Your task to perform on an android device: turn off location Image 0: 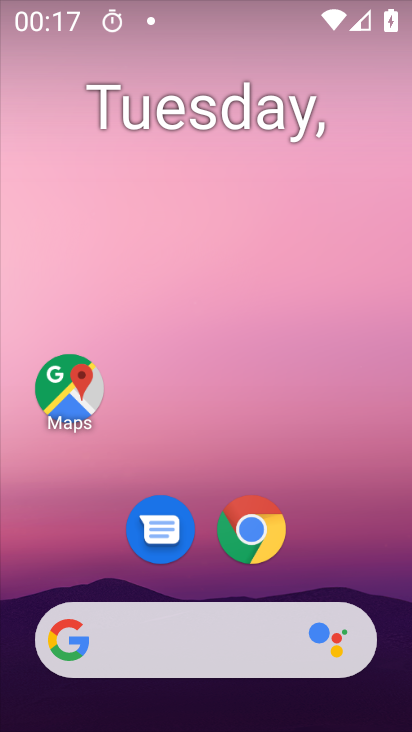
Step 0: drag from (385, 533) to (331, 49)
Your task to perform on an android device: turn off location Image 1: 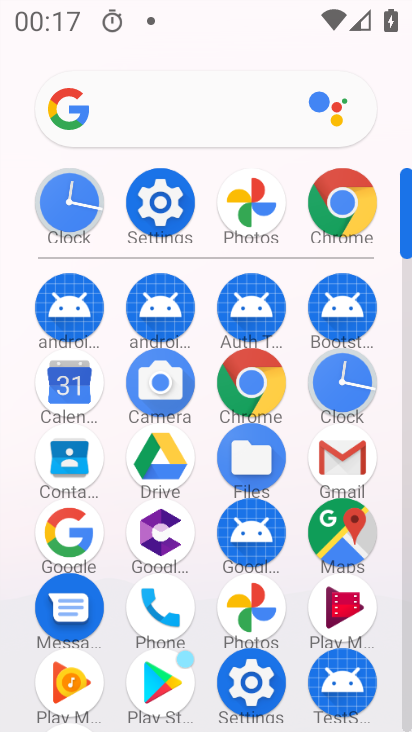
Step 1: click (179, 204)
Your task to perform on an android device: turn off location Image 2: 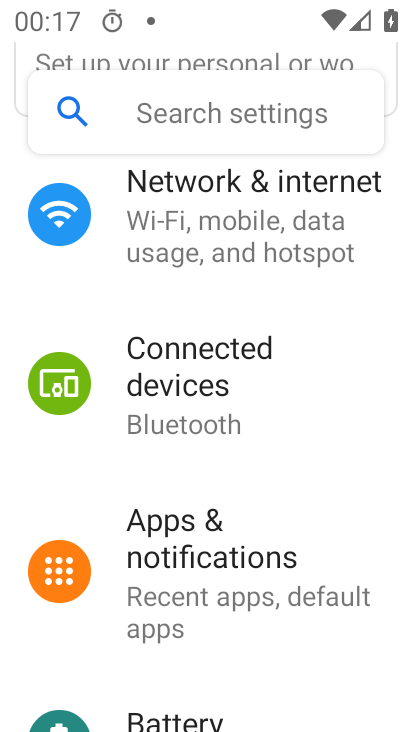
Step 2: drag from (350, 691) to (332, 0)
Your task to perform on an android device: turn off location Image 3: 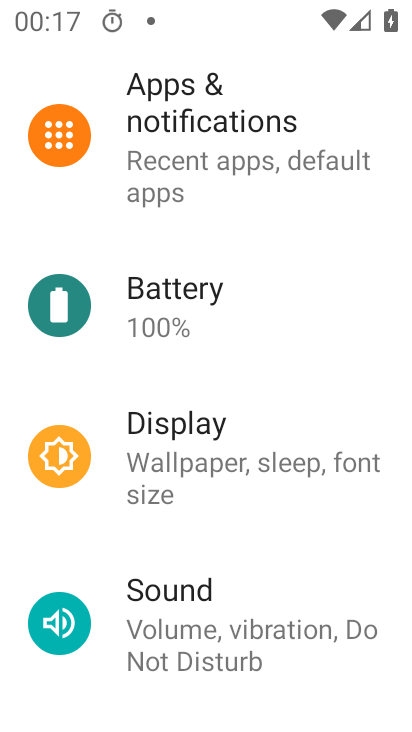
Step 3: drag from (375, 658) to (356, 188)
Your task to perform on an android device: turn off location Image 4: 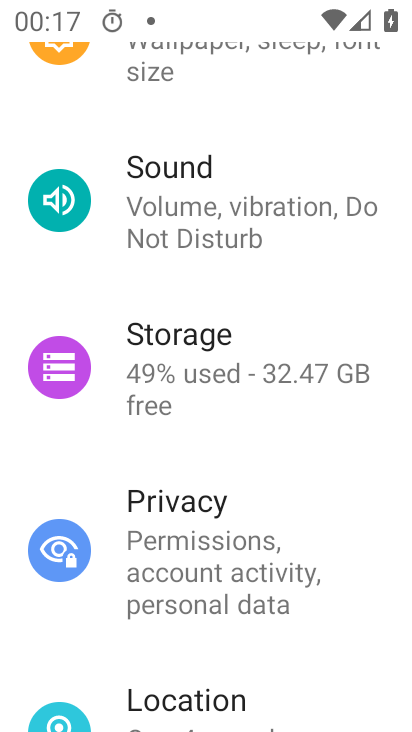
Step 4: drag from (373, 665) to (354, 234)
Your task to perform on an android device: turn off location Image 5: 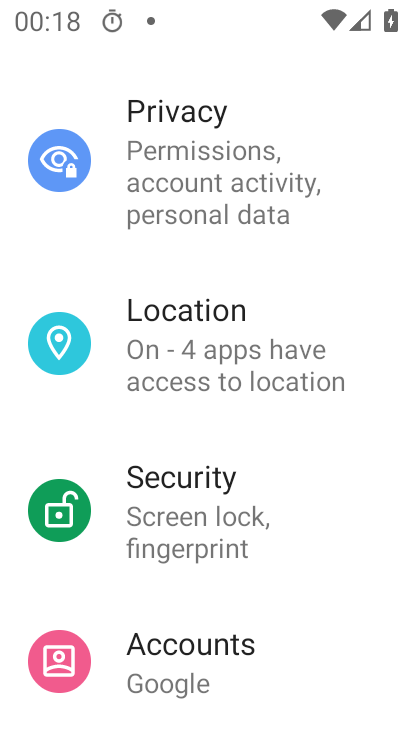
Step 5: click (248, 353)
Your task to perform on an android device: turn off location Image 6: 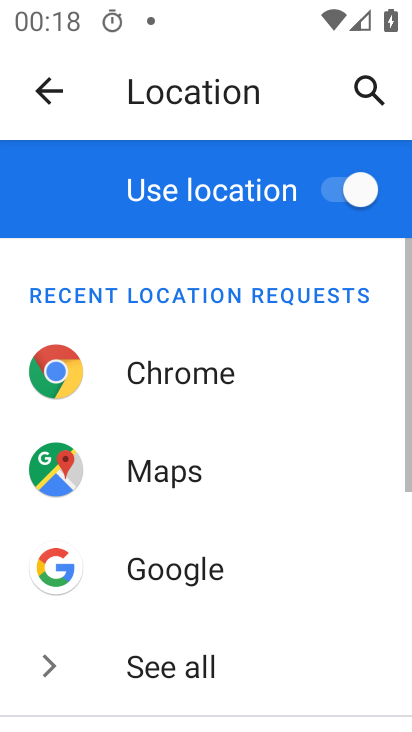
Step 6: click (270, 172)
Your task to perform on an android device: turn off location Image 7: 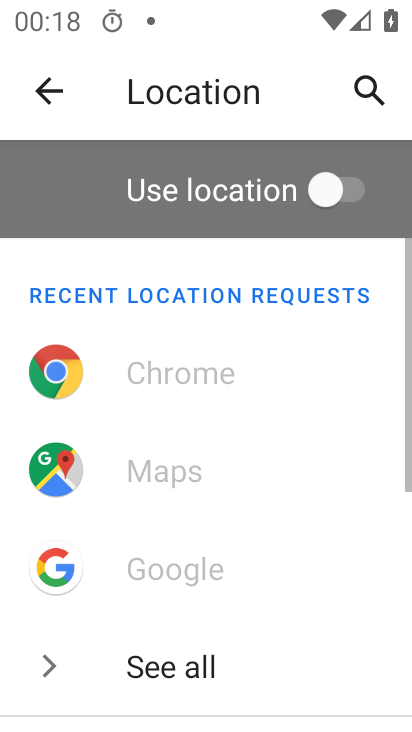
Step 7: task complete